Your task to perform on an android device: Open CNN.com Image 0: 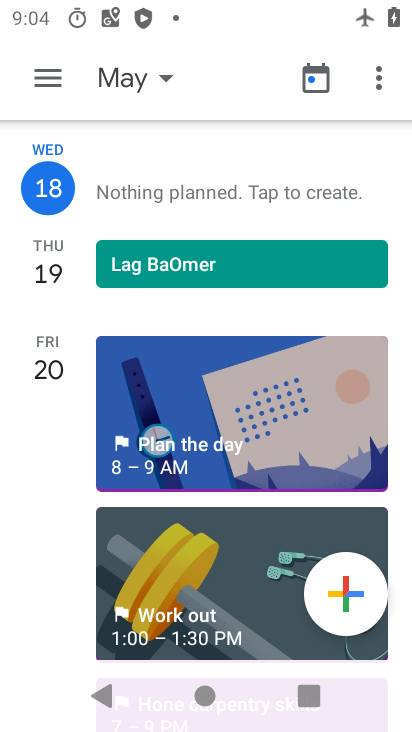
Step 0: press home button
Your task to perform on an android device: Open CNN.com Image 1: 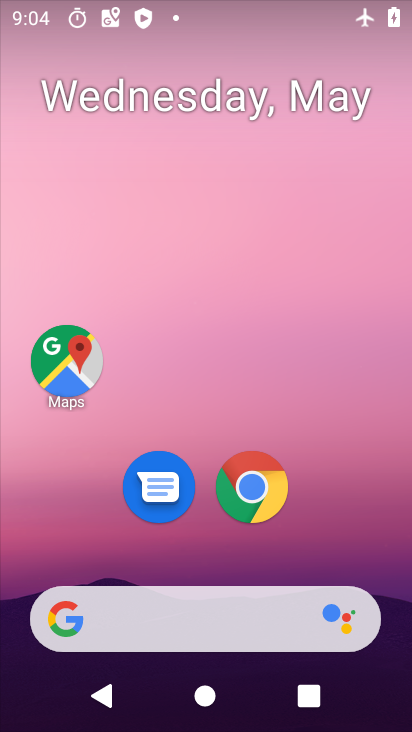
Step 1: click (246, 493)
Your task to perform on an android device: Open CNN.com Image 2: 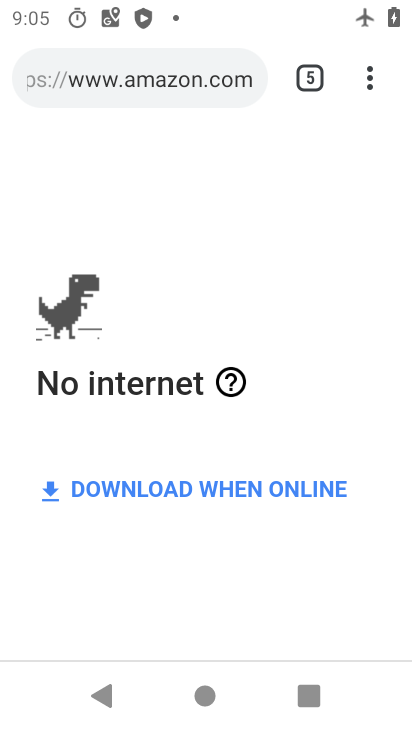
Step 2: click (302, 71)
Your task to perform on an android device: Open CNN.com Image 3: 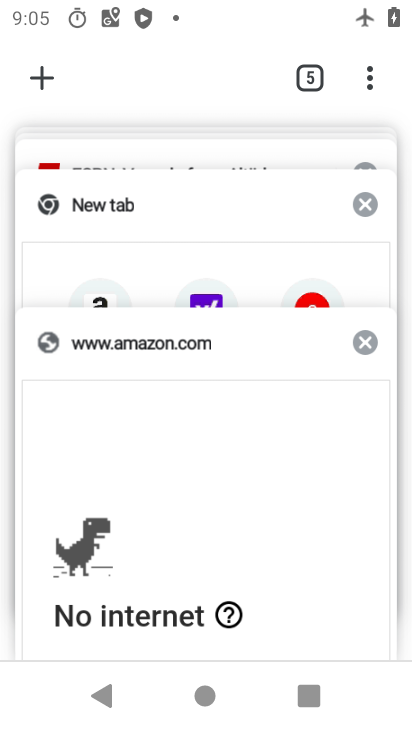
Step 3: click (46, 64)
Your task to perform on an android device: Open CNN.com Image 4: 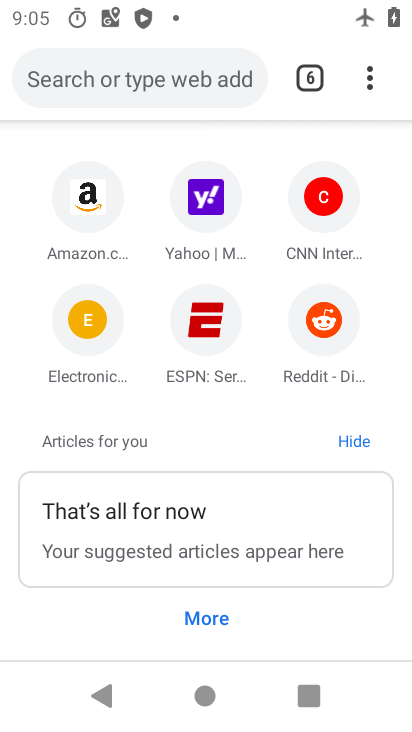
Step 4: click (313, 204)
Your task to perform on an android device: Open CNN.com Image 5: 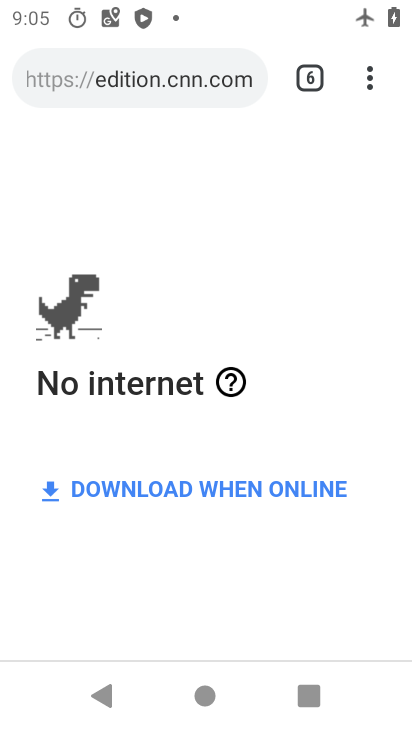
Step 5: task complete